Your task to perform on an android device: open app "Pandora - Music & Podcasts" Image 0: 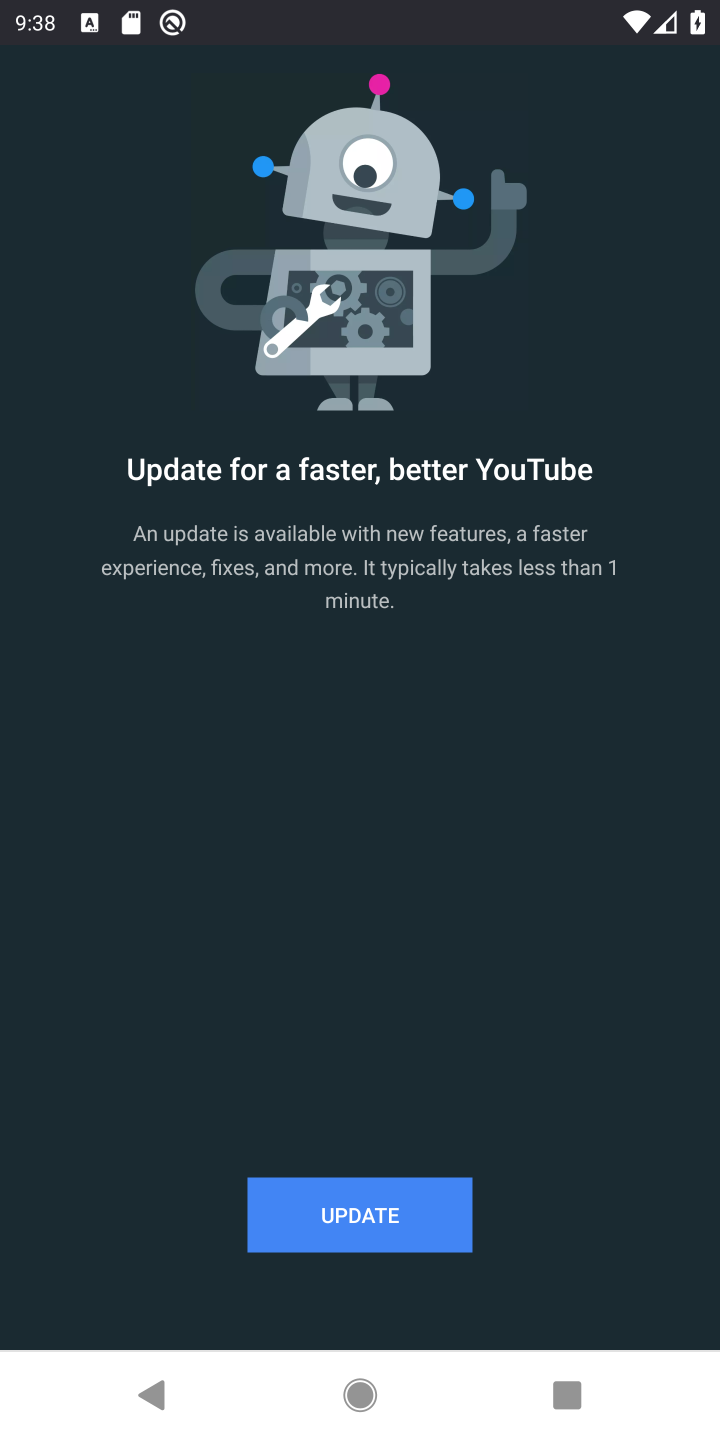
Step 0: press home button
Your task to perform on an android device: open app "Pandora - Music & Podcasts" Image 1: 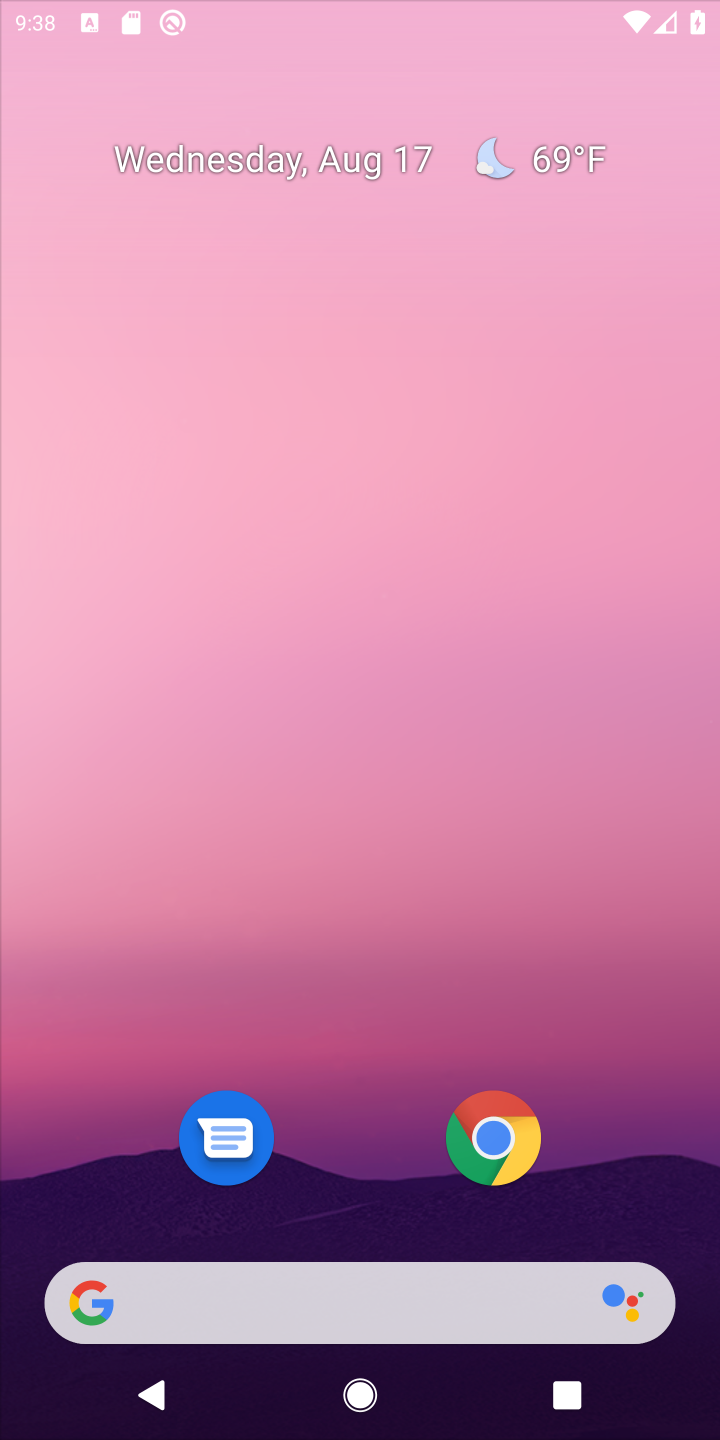
Step 1: drag from (368, 859) to (368, 256)
Your task to perform on an android device: open app "Pandora - Music & Podcasts" Image 2: 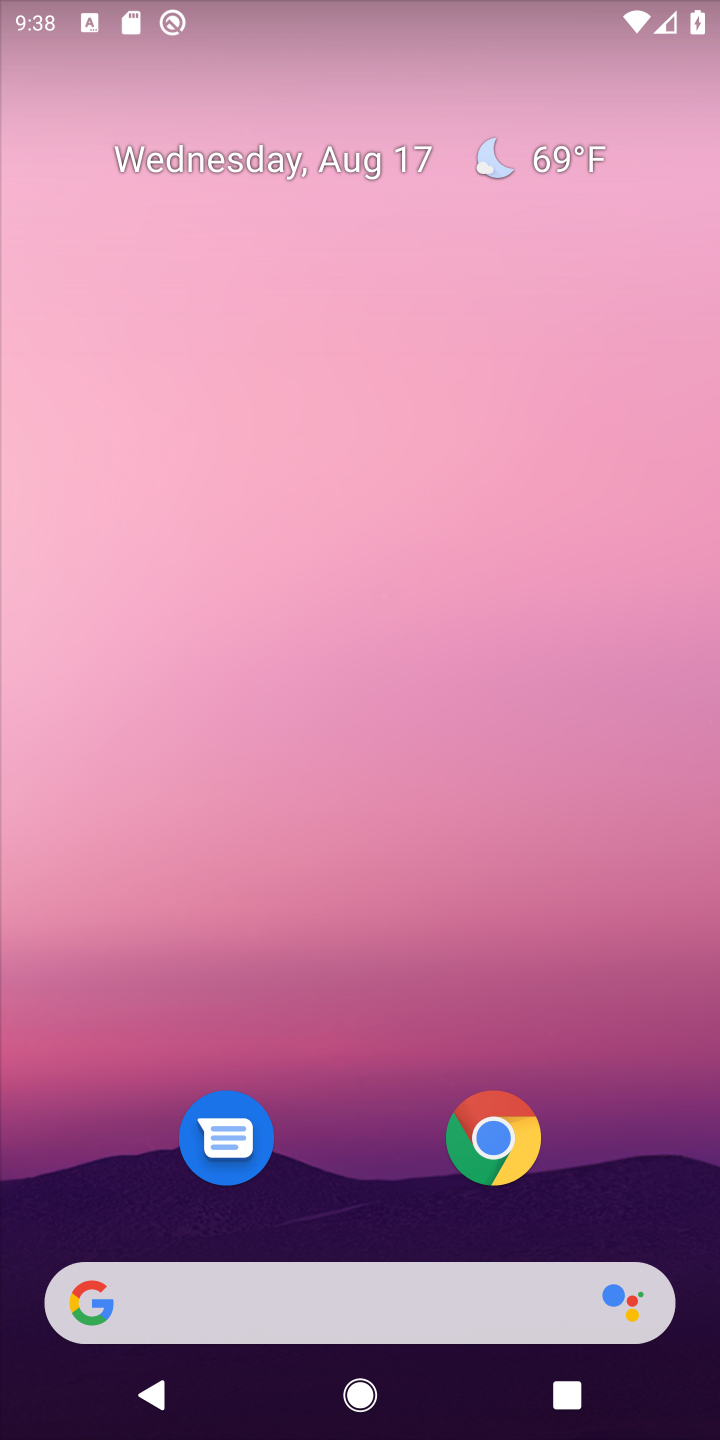
Step 2: drag from (325, 1256) to (302, 279)
Your task to perform on an android device: open app "Pandora - Music & Podcasts" Image 3: 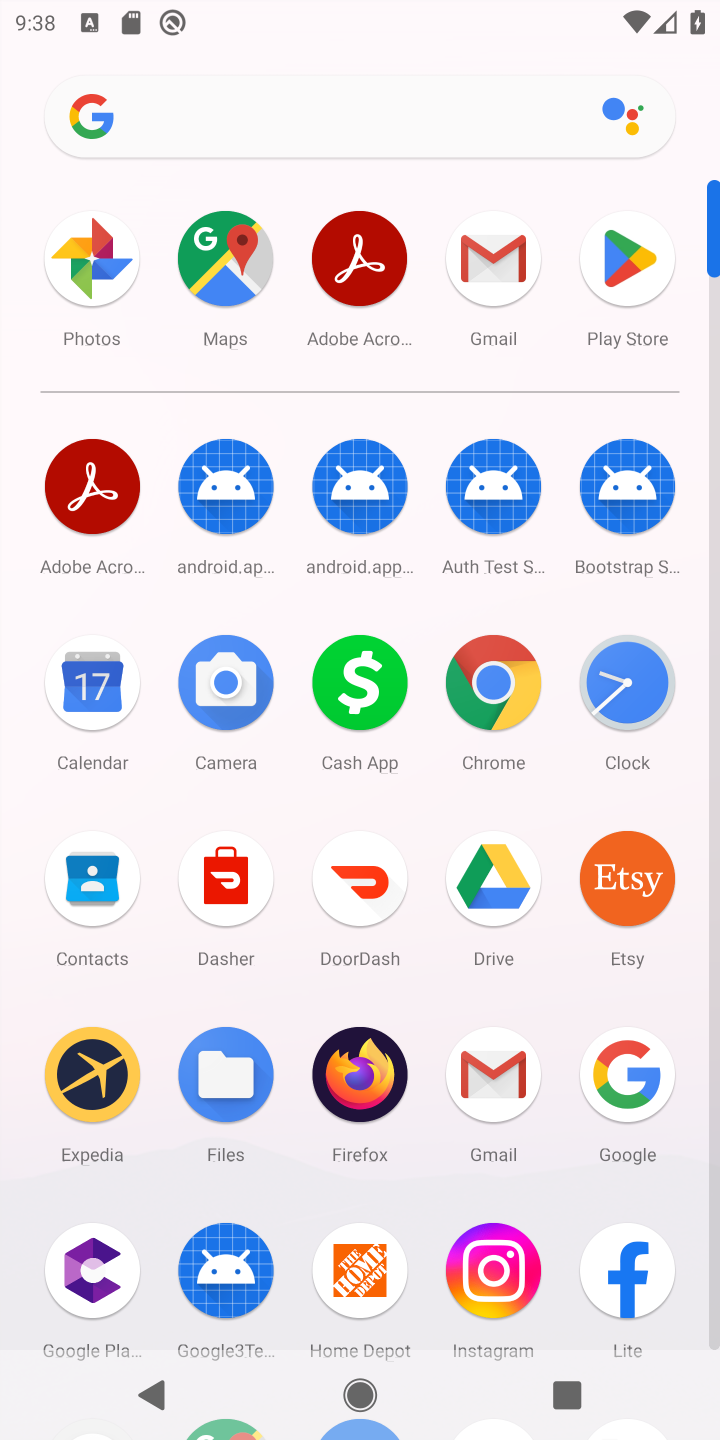
Step 3: click (635, 243)
Your task to perform on an android device: open app "Pandora - Music & Podcasts" Image 4: 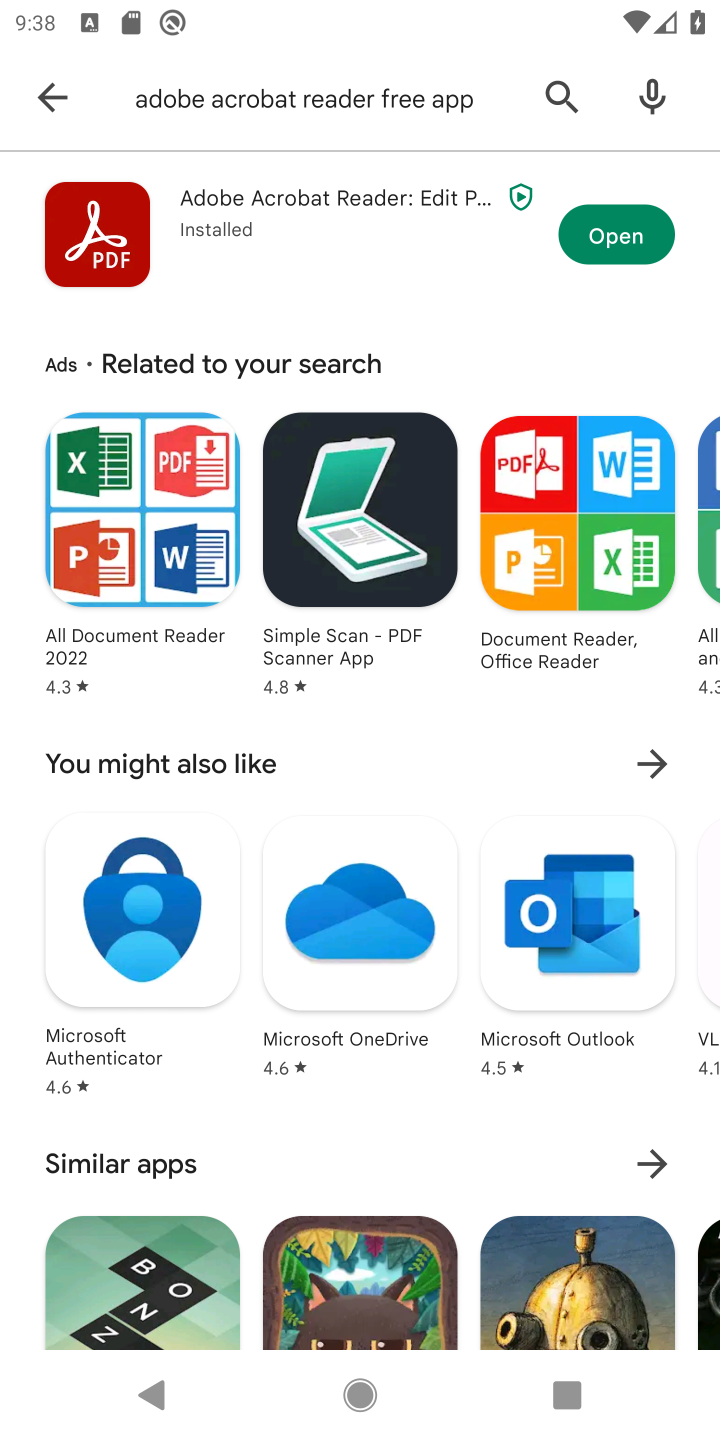
Step 4: click (34, 83)
Your task to perform on an android device: open app "Pandora - Music & Podcasts" Image 5: 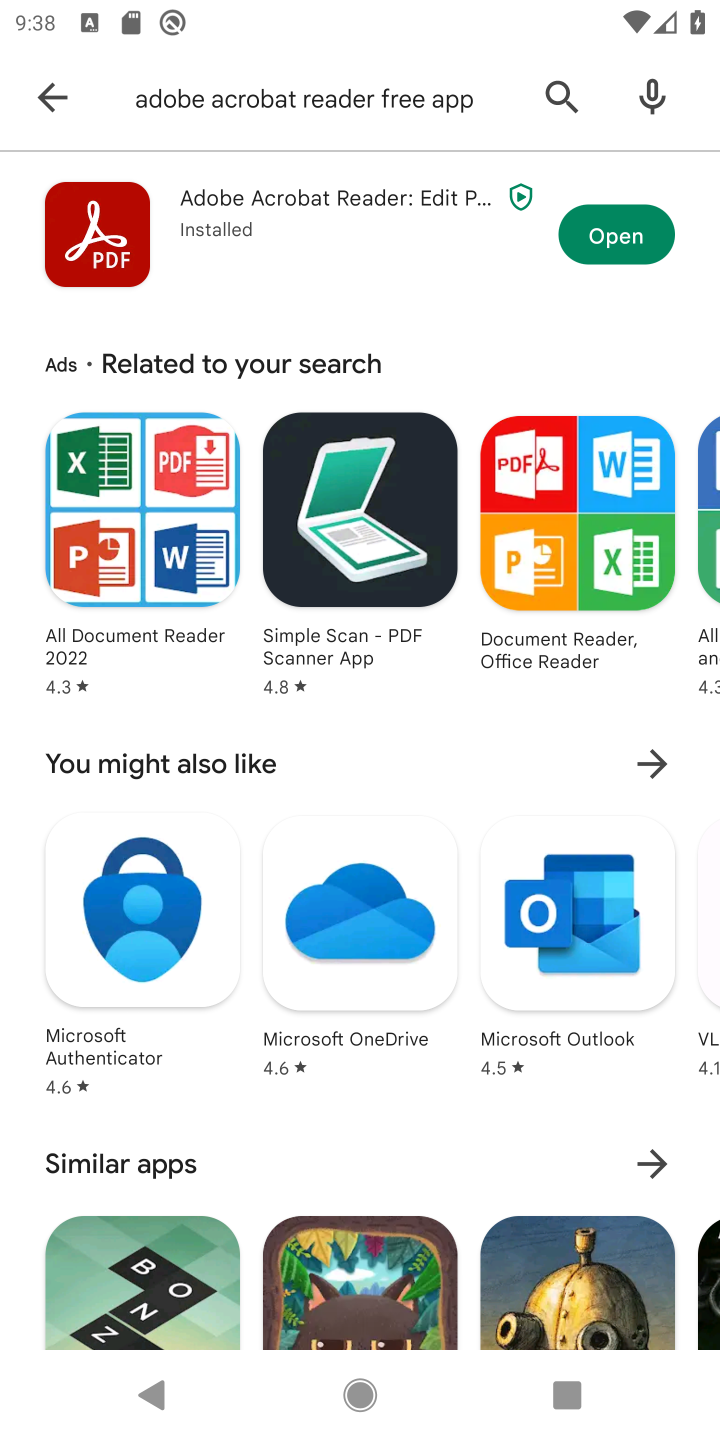
Step 5: click (65, 83)
Your task to perform on an android device: open app "Pandora - Music & Podcasts" Image 6: 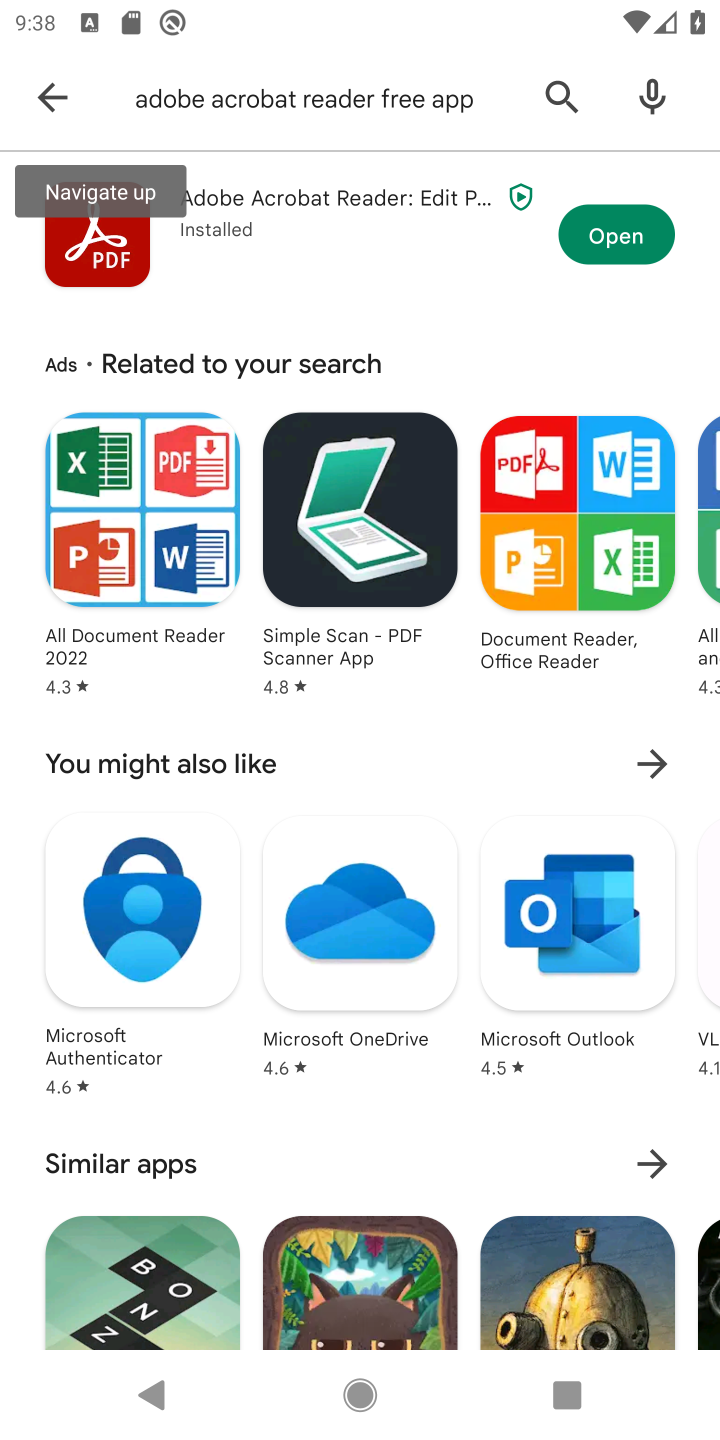
Step 6: click (65, 83)
Your task to perform on an android device: open app "Pandora - Music & Podcasts" Image 7: 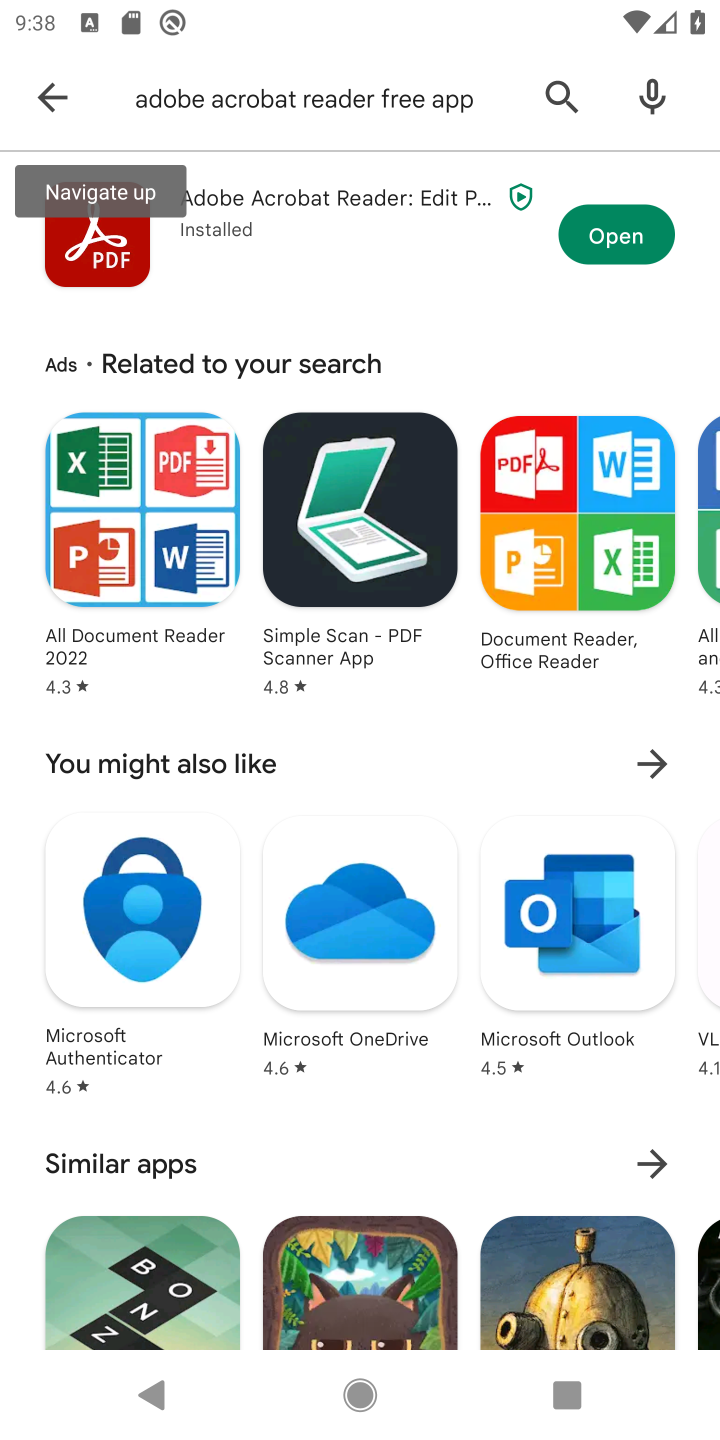
Step 7: click (46, 100)
Your task to perform on an android device: open app "Pandora - Music & Podcasts" Image 8: 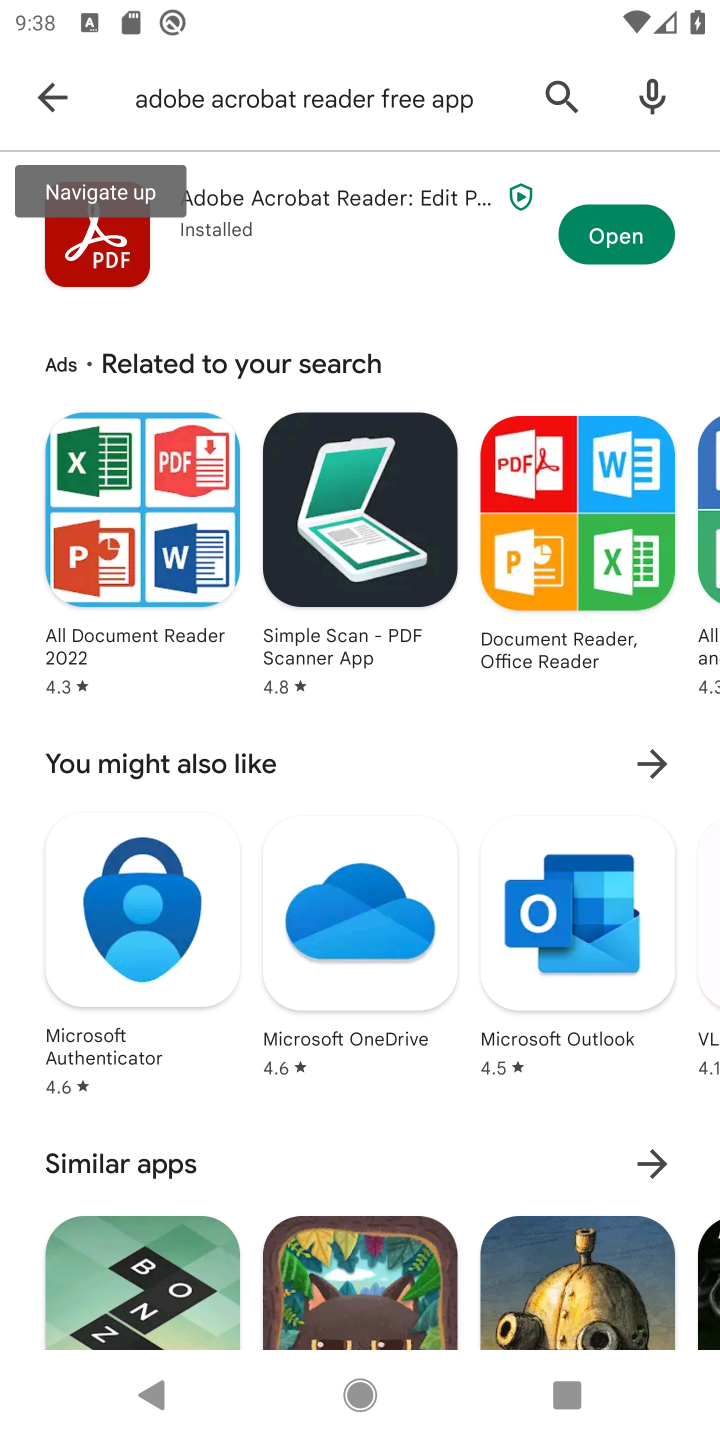
Step 8: click (46, 100)
Your task to perform on an android device: open app "Pandora - Music & Podcasts" Image 9: 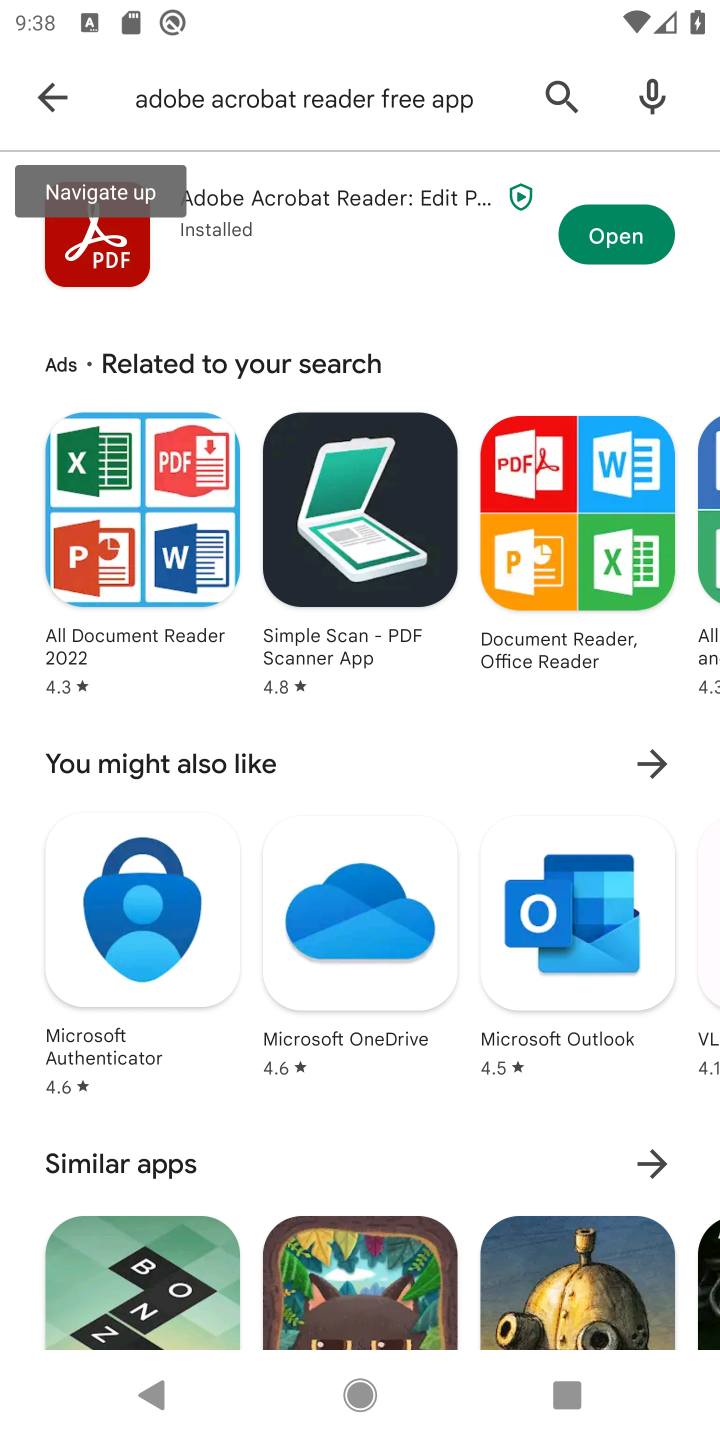
Step 9: click (46, 100)
Your task to perform on an android device: open app "Pandora - Music & Podcasts" Image 10: 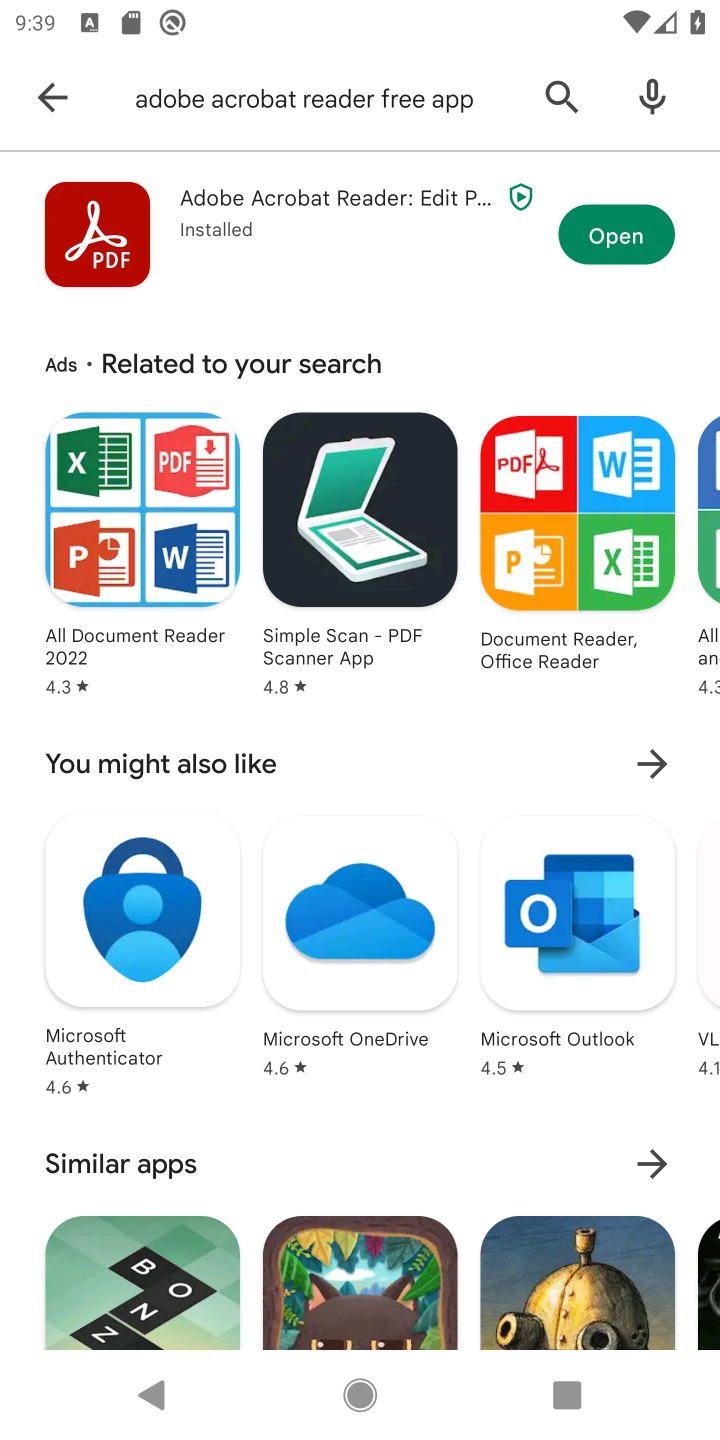
Step 10: click (43, 85)
Your task to perform on an android device: open app "Pandora - Music & Podcasts" Image 11: 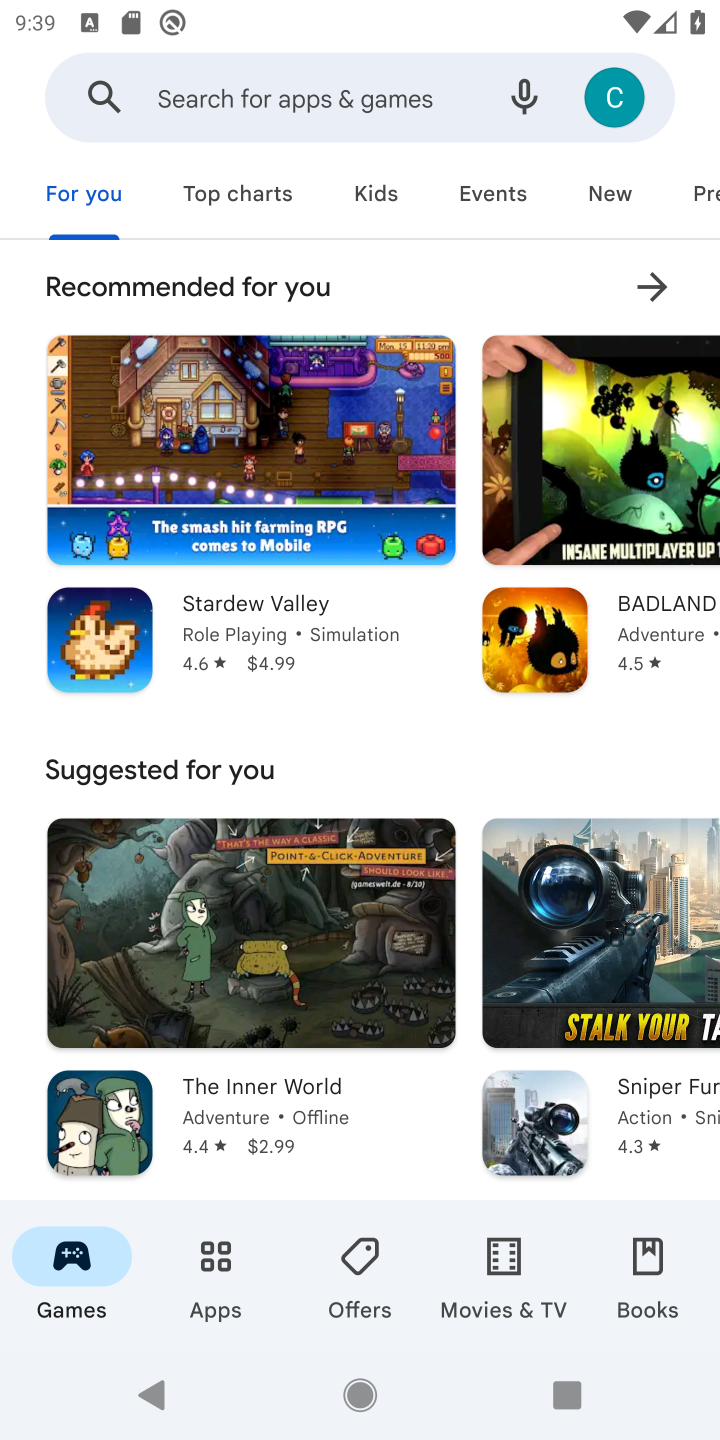
Step 11: click (377, 84)
Your task to perform on an android device: open app "Pandora - Music & Podcasts" Image 12: 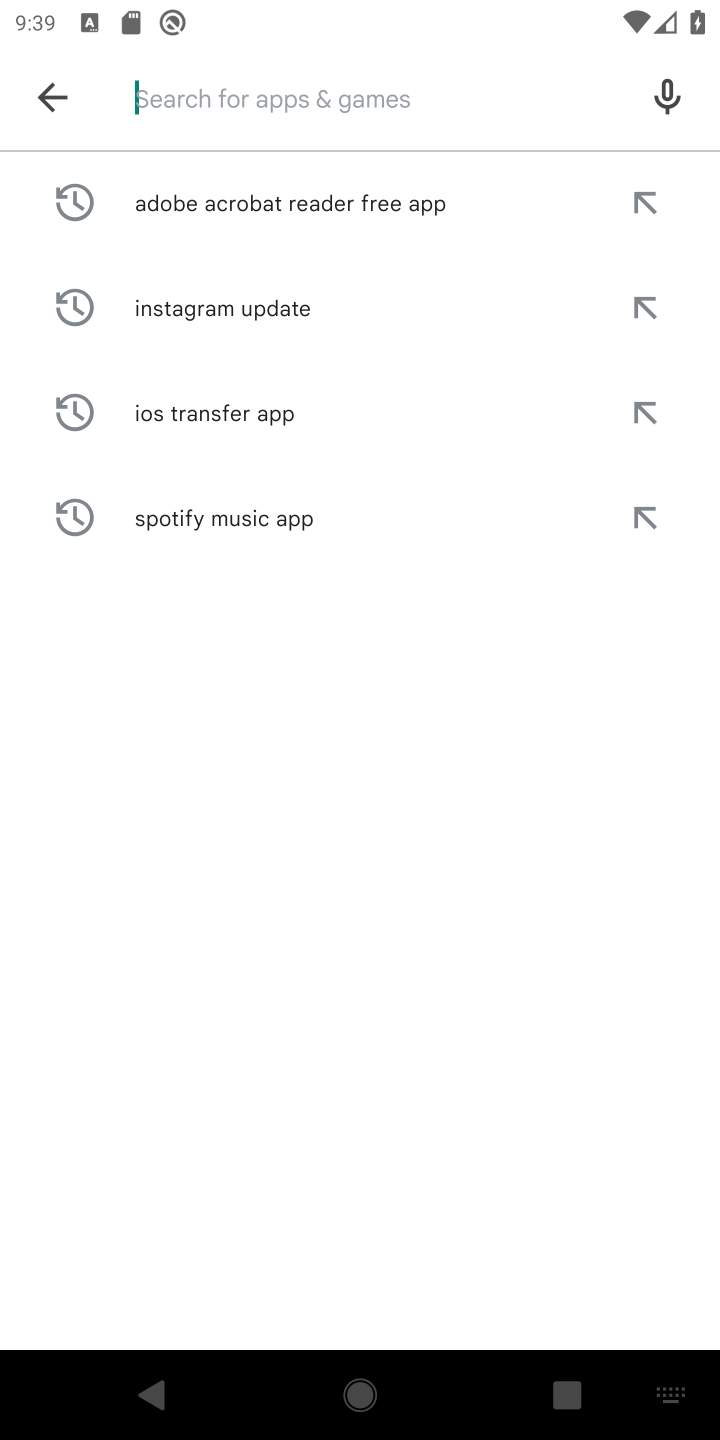
Step 12: type "Pandora - Music & Podcastb"
Your task to perform on an android device: open app "Pandora - Music & Podcasts" Image 13: 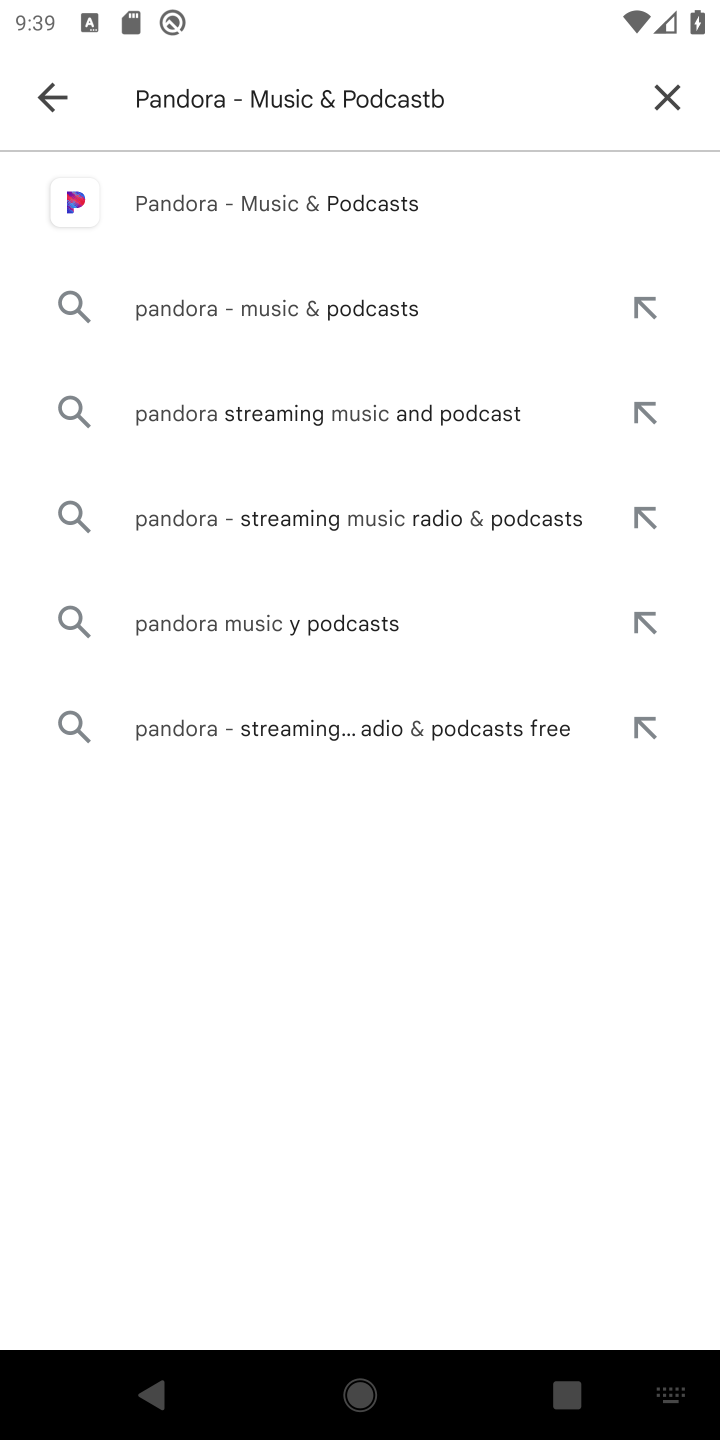
Step 13: click (254, 199)
Your task to perform on an android device: open app "Pandora - Music & Podcasts" Image 14: 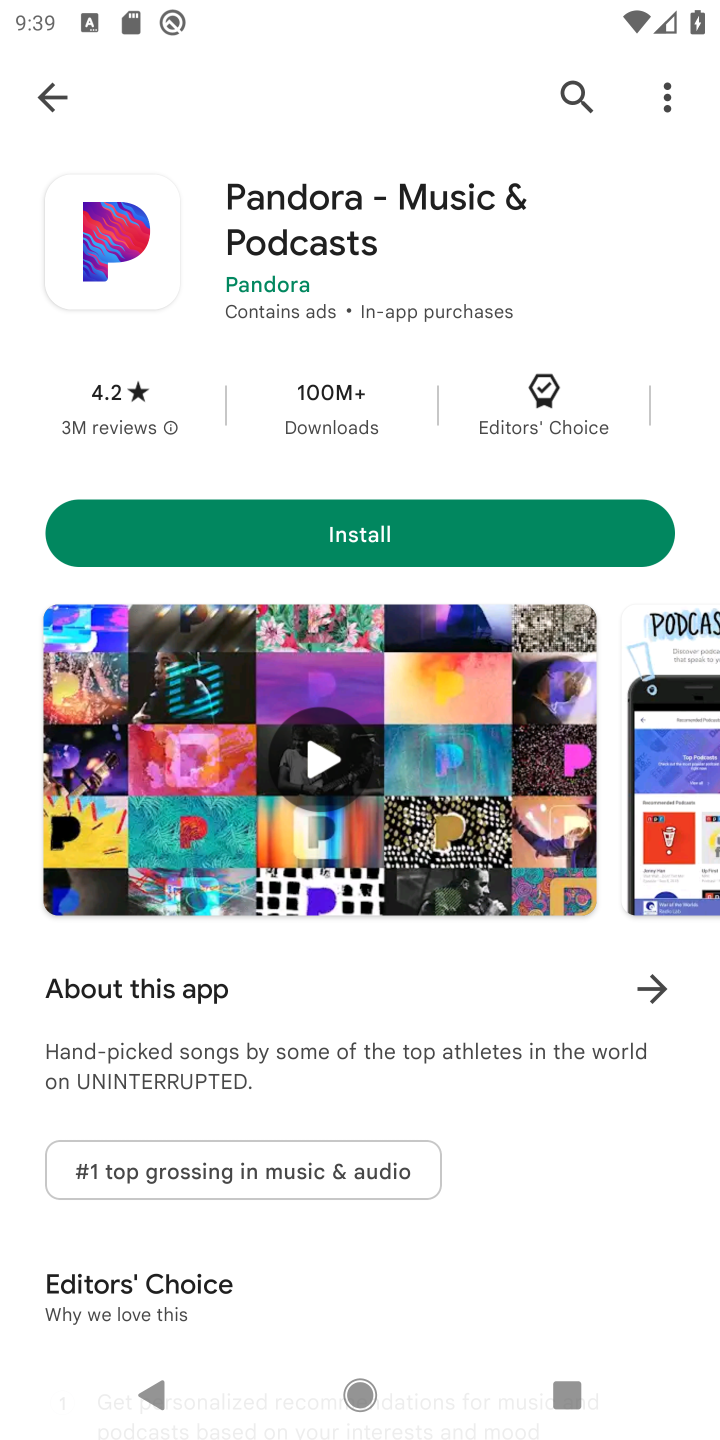
Step 14: click (390, 543)
Your task to perform on an android device: open app "Pandora - Music & Podcasts" Image 15: 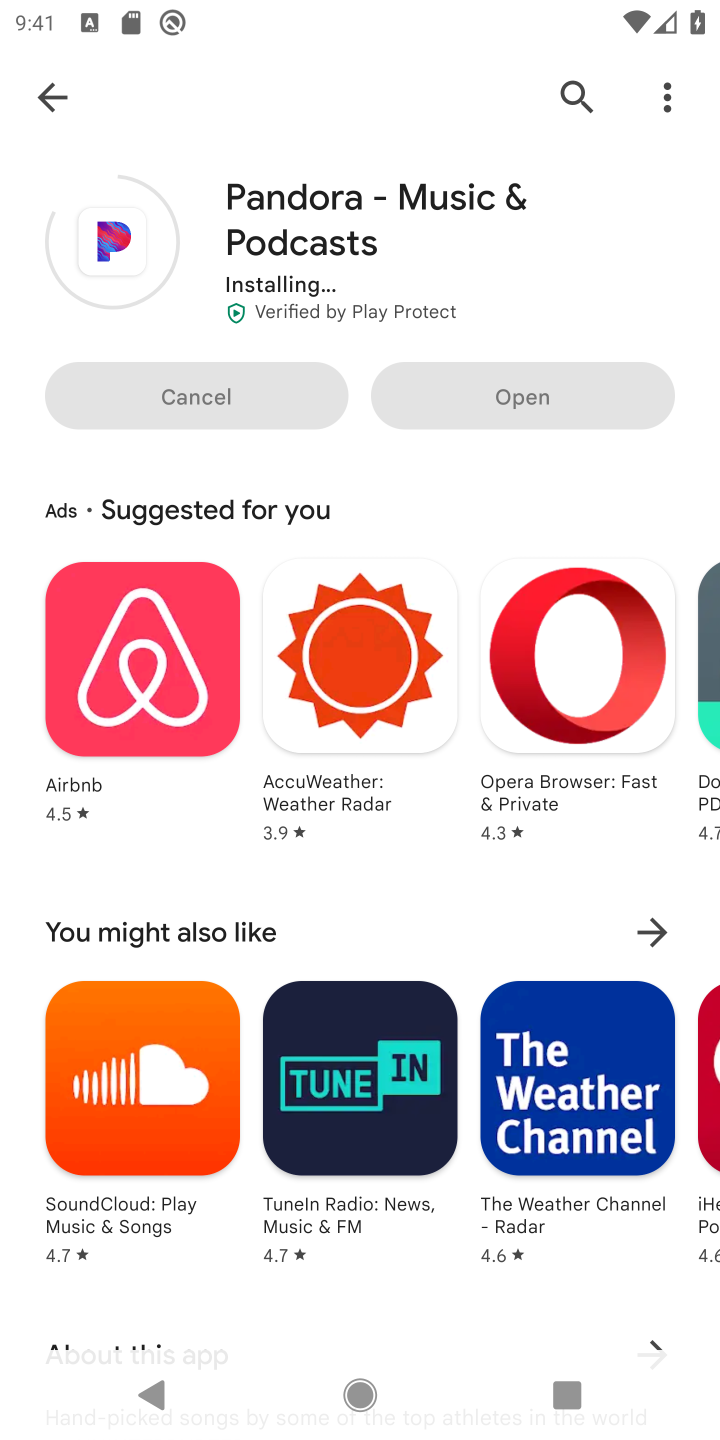
Step 15: task complete